Your task to perform on an android device: Open Youtube and go to "Your channel" Image 0: 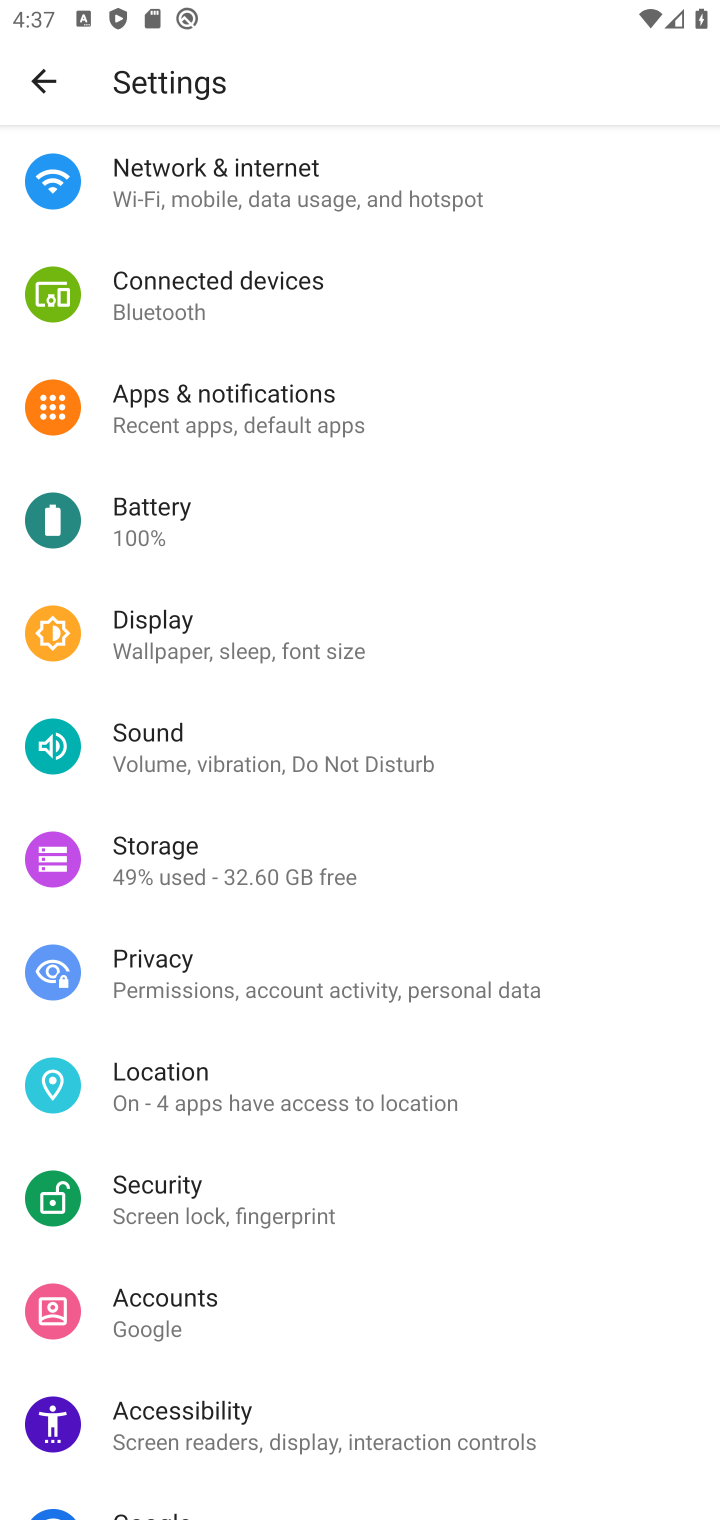
Step 0: press home button
Your task to perform on an android device: Open Youtube and go to "Your channel" Image 1: 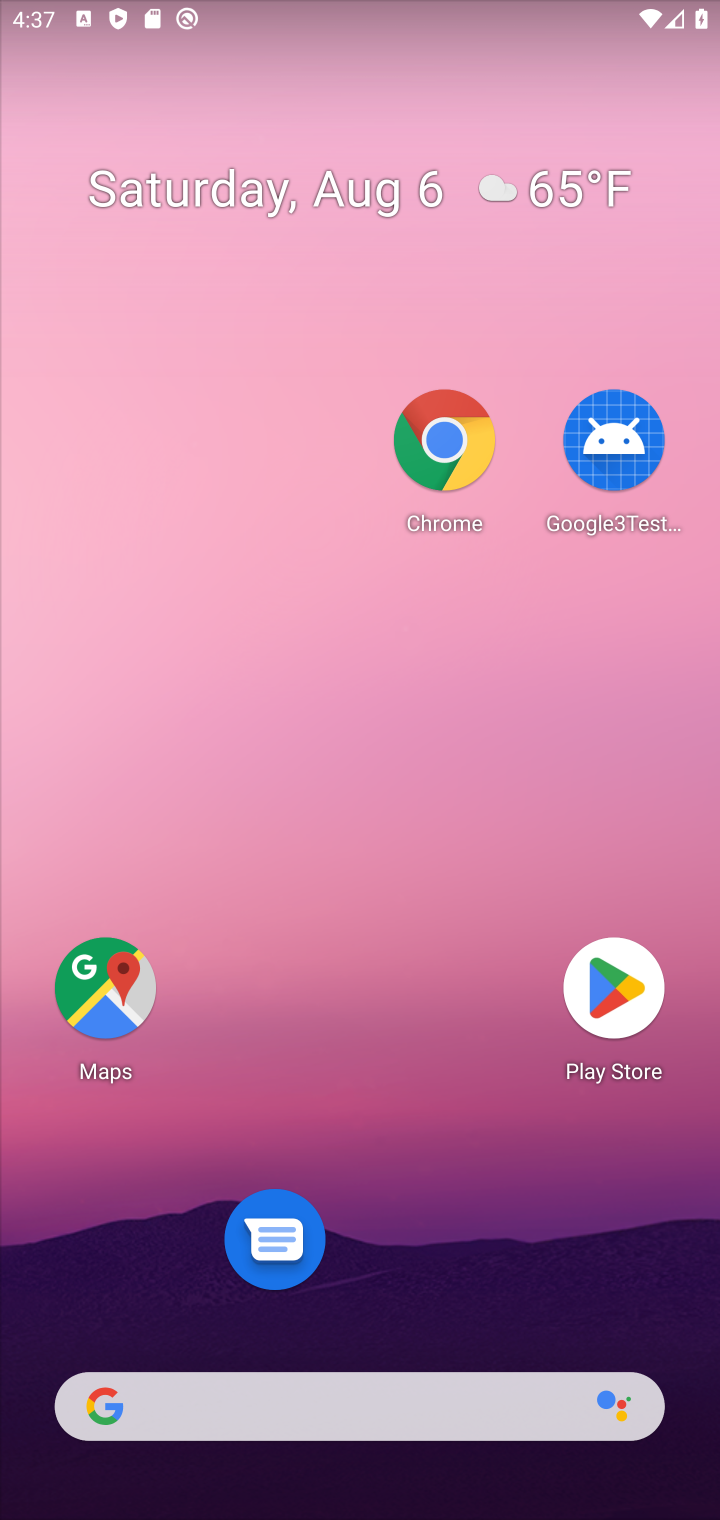
Step 1: drag from (507, 1400) to (440, 279)
Your task to perform on an android device: Open Youtube and go to "Your channel" Image 2: 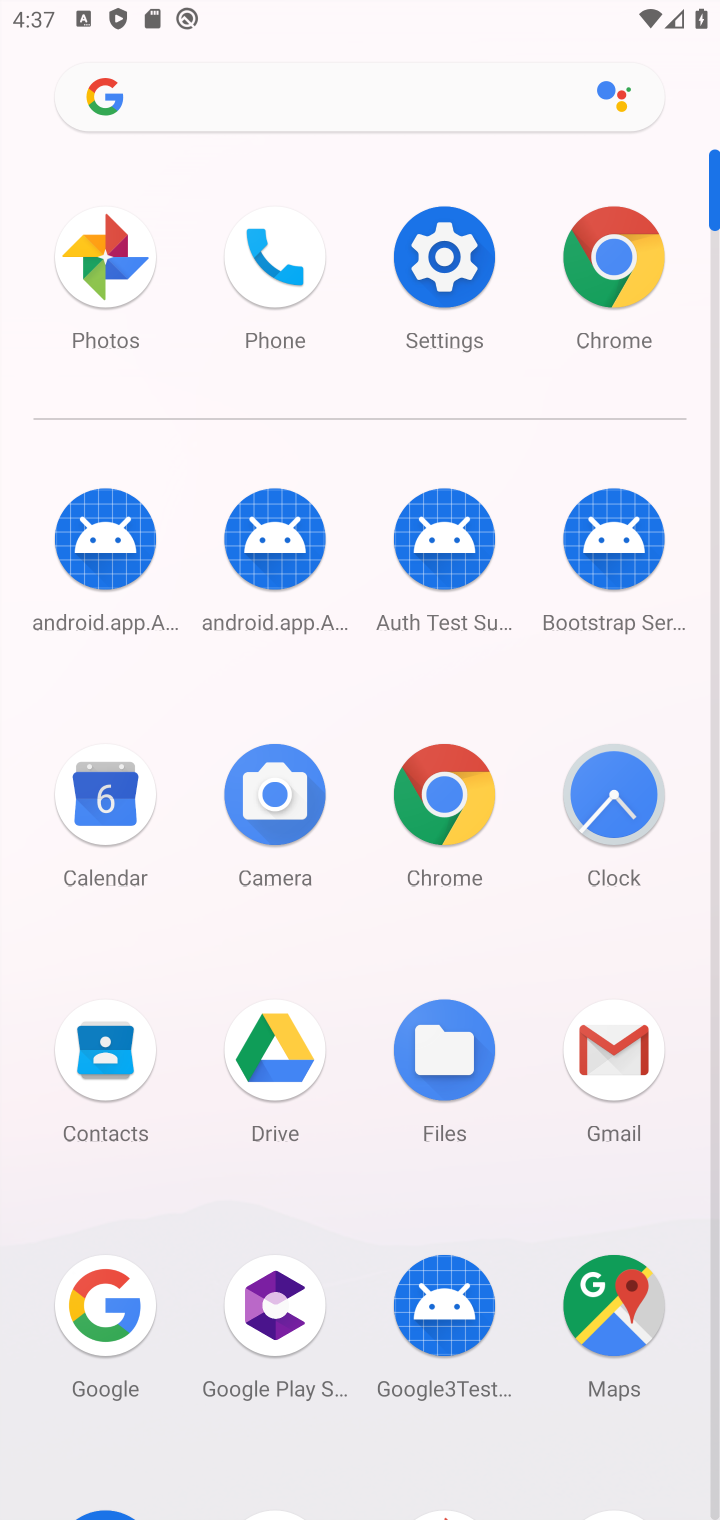
Step 2: drag from (520, 1217) to (515, 365)
Your task to perform on an android device: Open Youtube and go to "Your channel" Image 3: 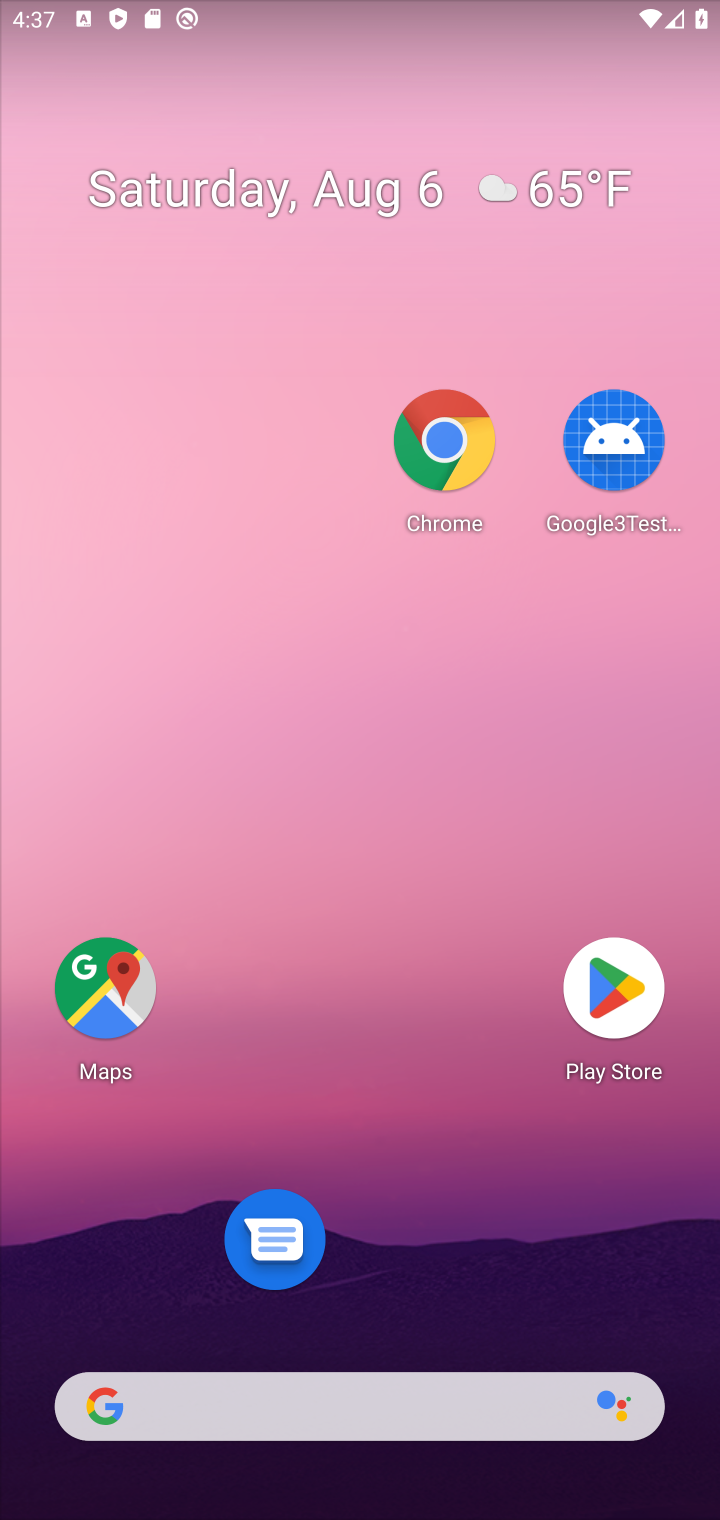
Step 3: drag from (404, 1403) to (373, 91)
Your task to perform on an android device: Open Youtube and go to "Your channel" Image 4: 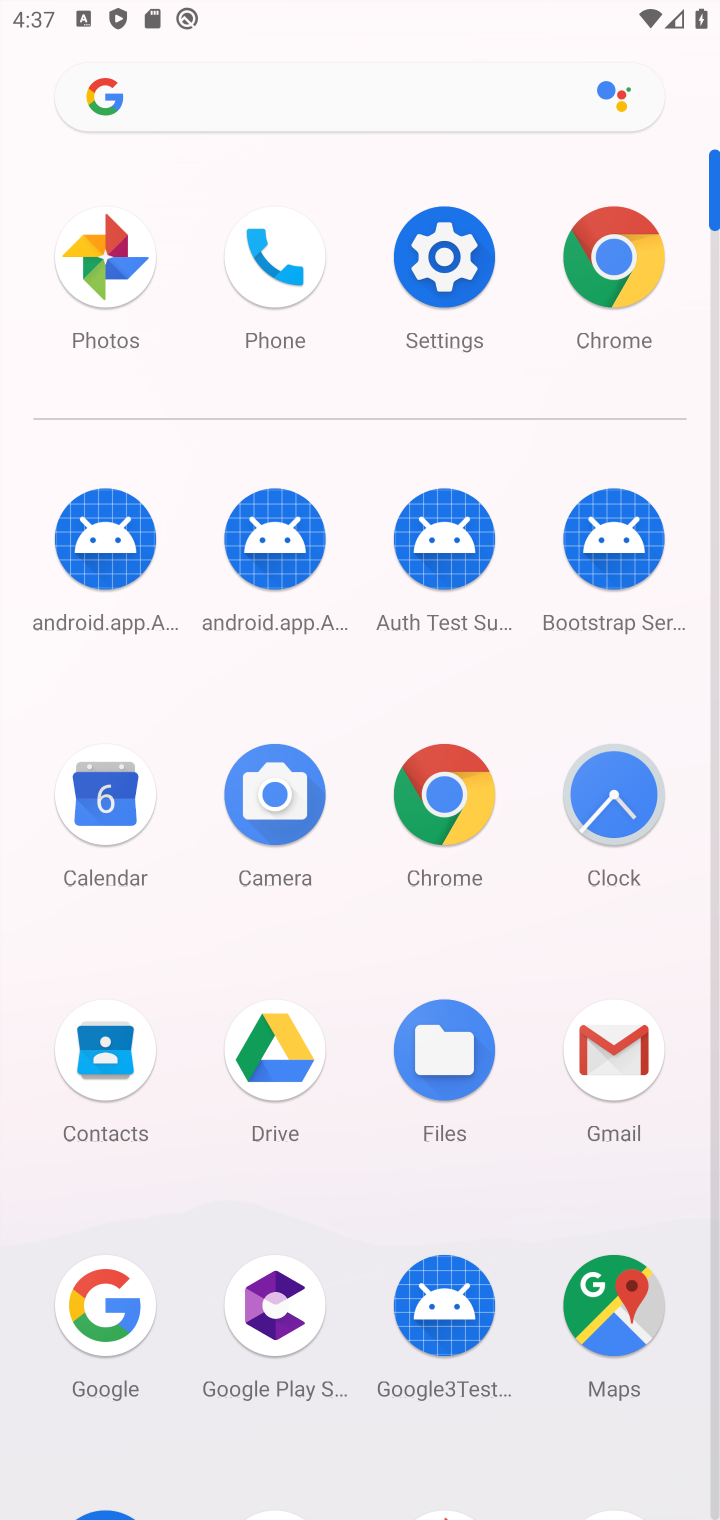
Step 4: drag from (489, 1220) to (514, 429)
Your task to perform on an android device: Open Youtube and go to "Your channel" Image 5: 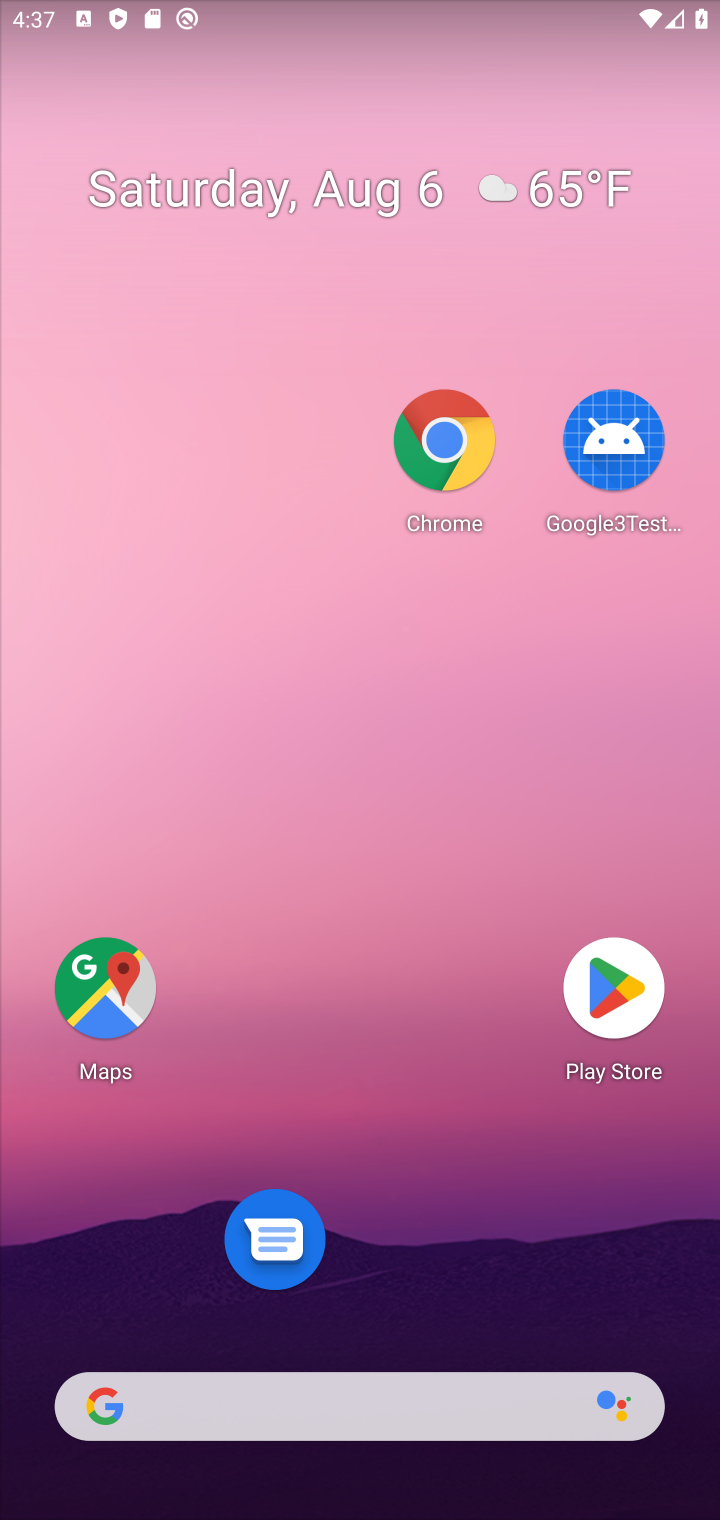
Step 5: drag from (434, 1300) to (342, 46)
Your task to perform on an android device: Open Youtube and go to "Your channel" Image 6: 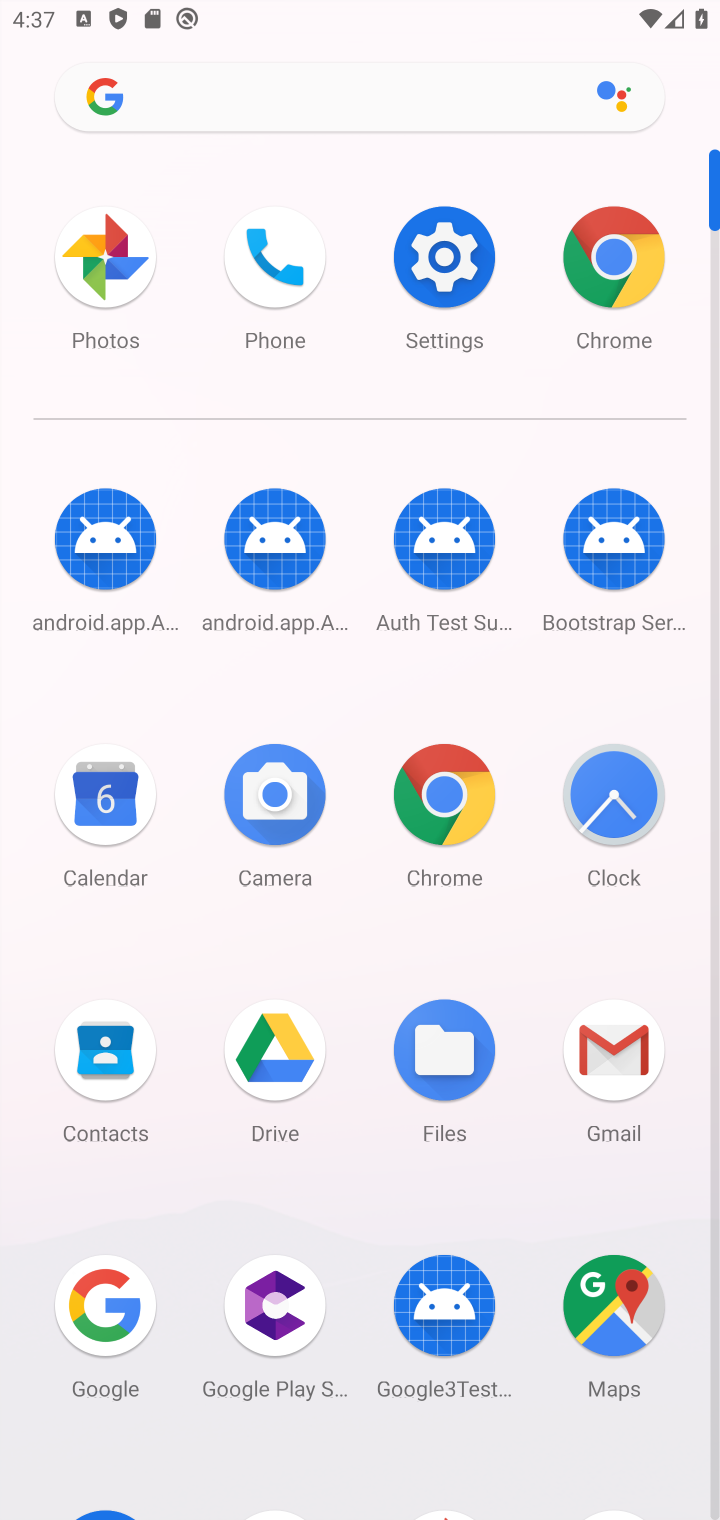
Step 6: drag from (338, 1261) to (292, 178)
Your task to perform on an android device: Open Youtube and go to "Your channel" Image 7: 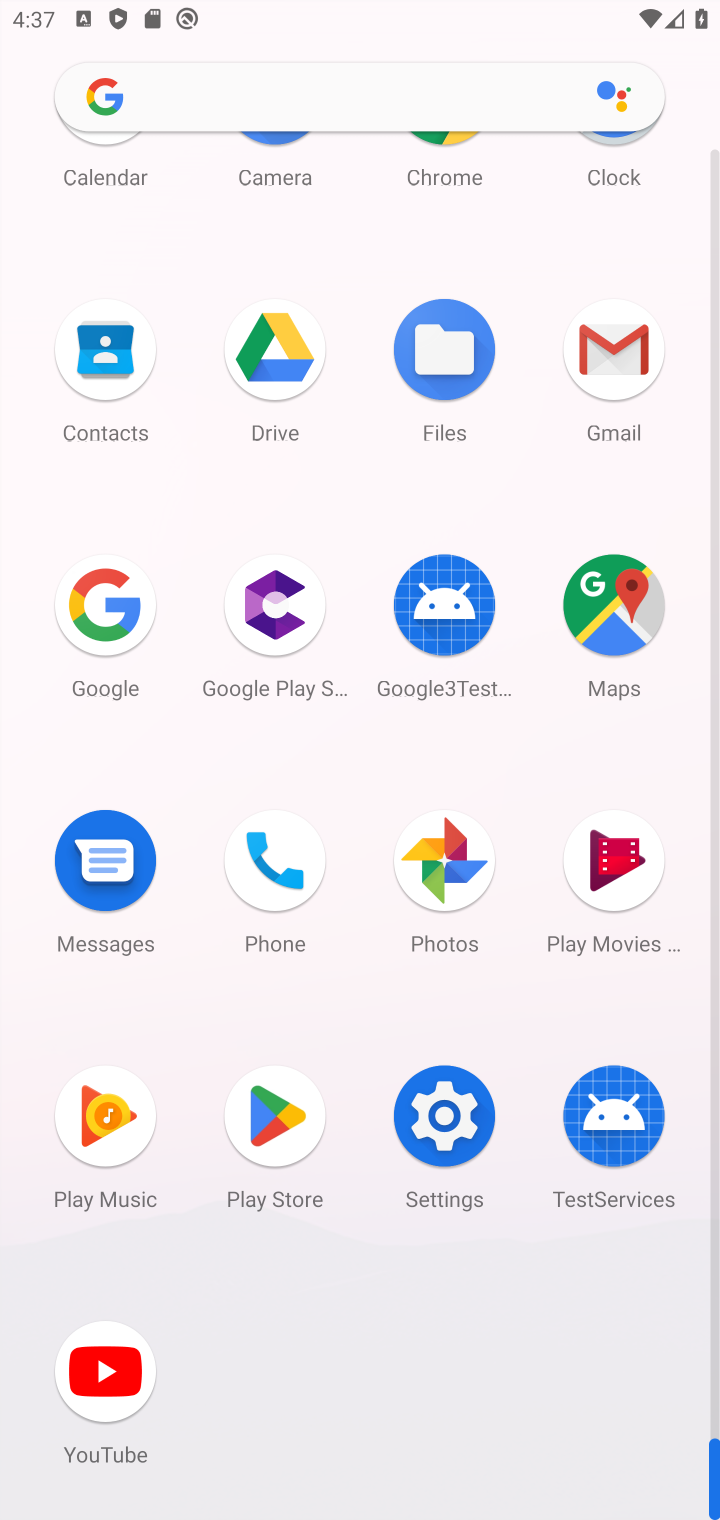
Step 7: click (110, 1364)
Your task to perform on an android device: Open Youtube and go to "Your channel" Image 8: 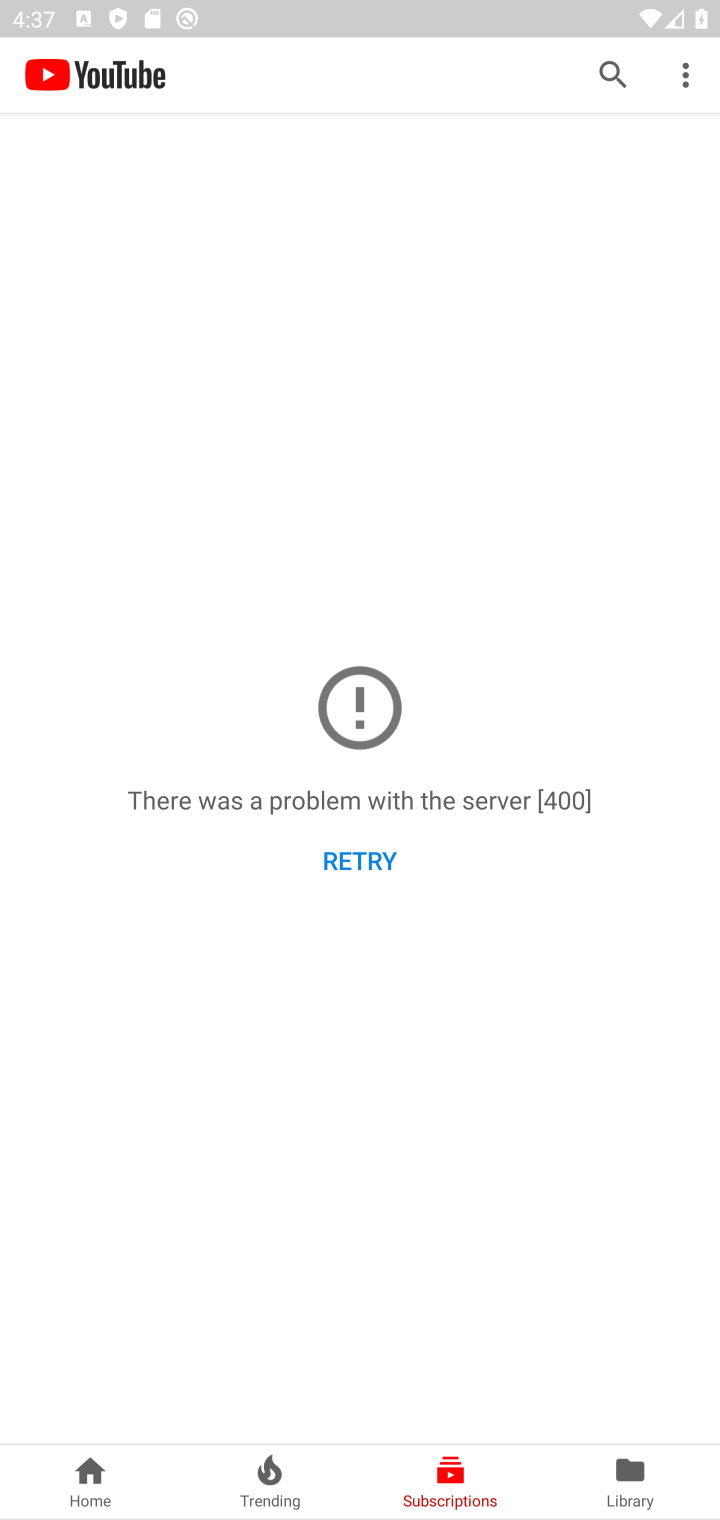
Step 8: click (629, 1469)
Your task to perform on an android device: Open Youtube and go to "Your channel" Image 9: 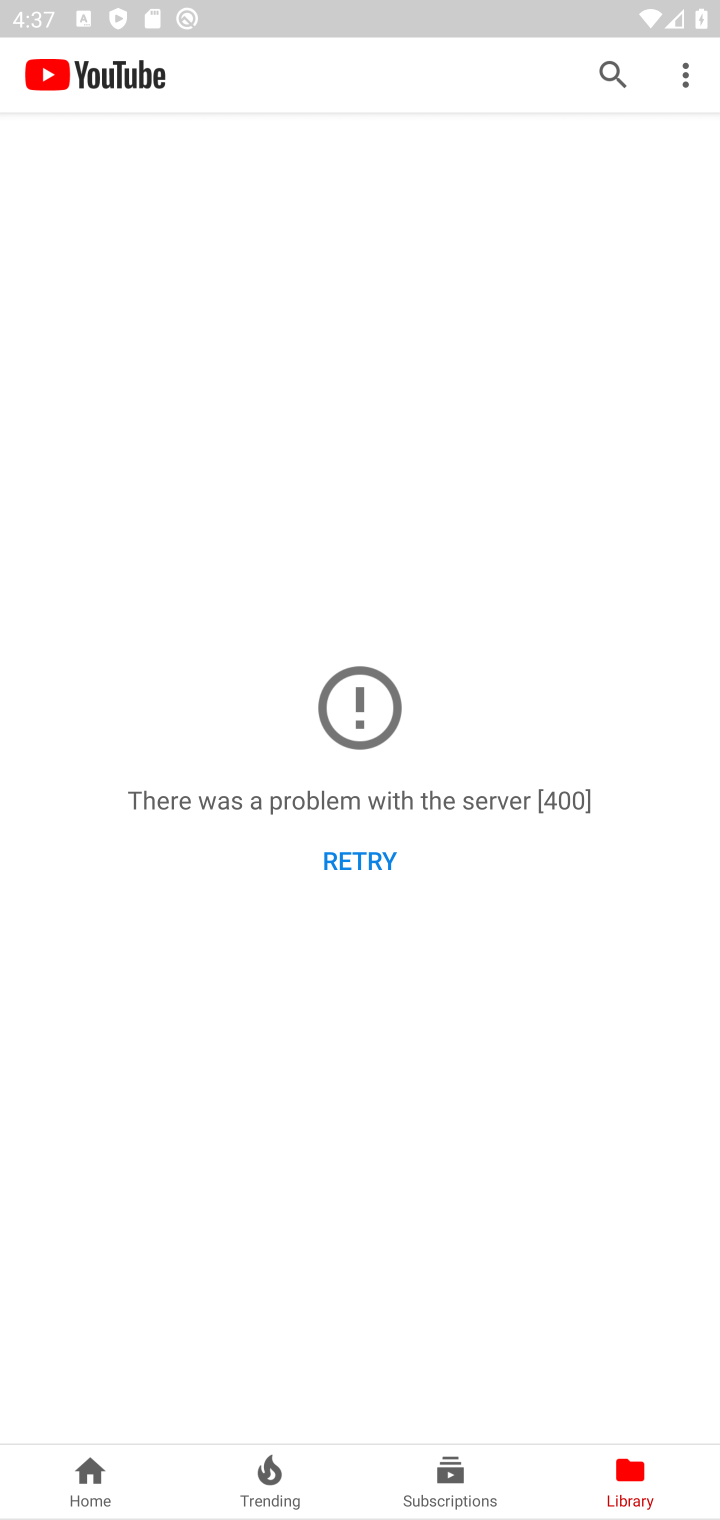
Step 9: click (679, 68)
Your task to perform on an android device: Open Youtube and go to "Your channel" Image 10: 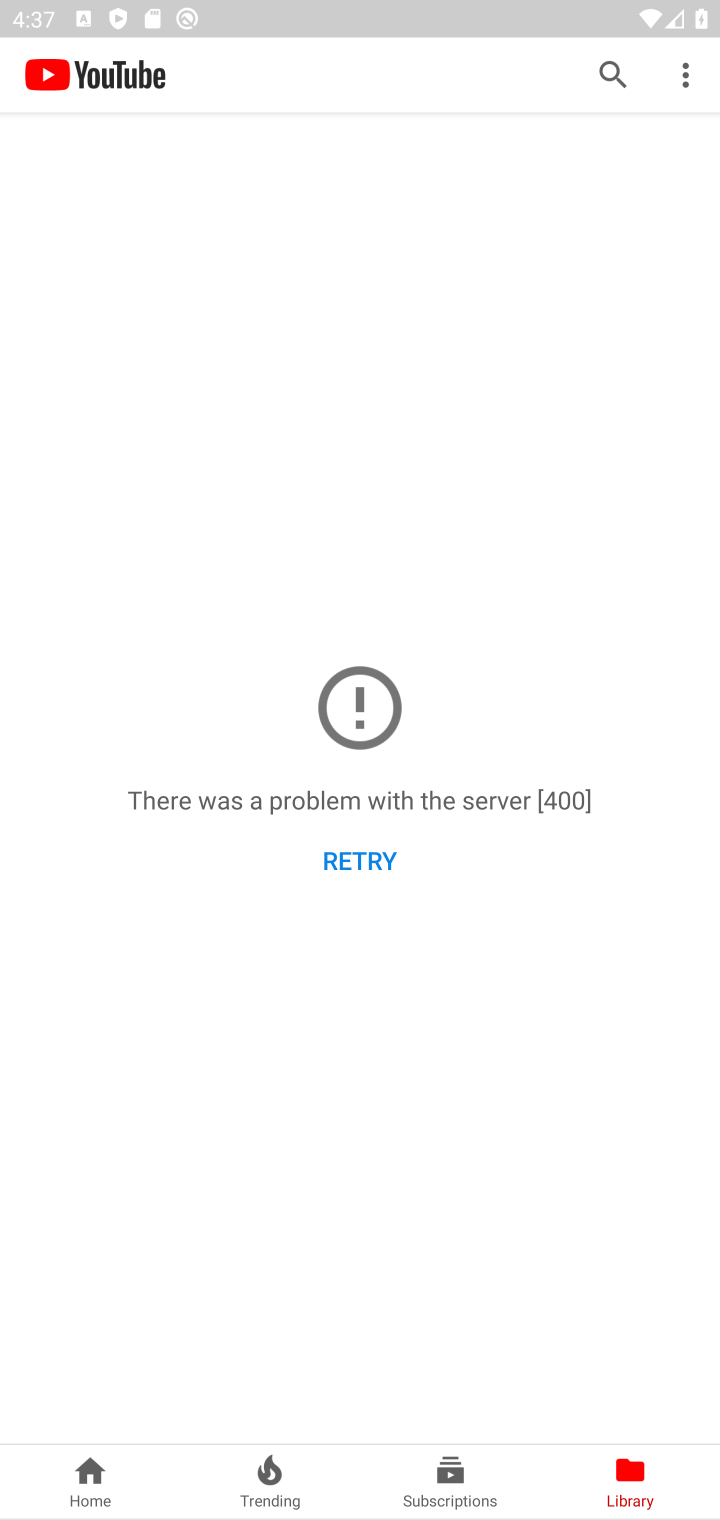
Step 10: click (679, 68)
Your task to perform on an android device: Open Youtube and go to "Your channel" Image 11: 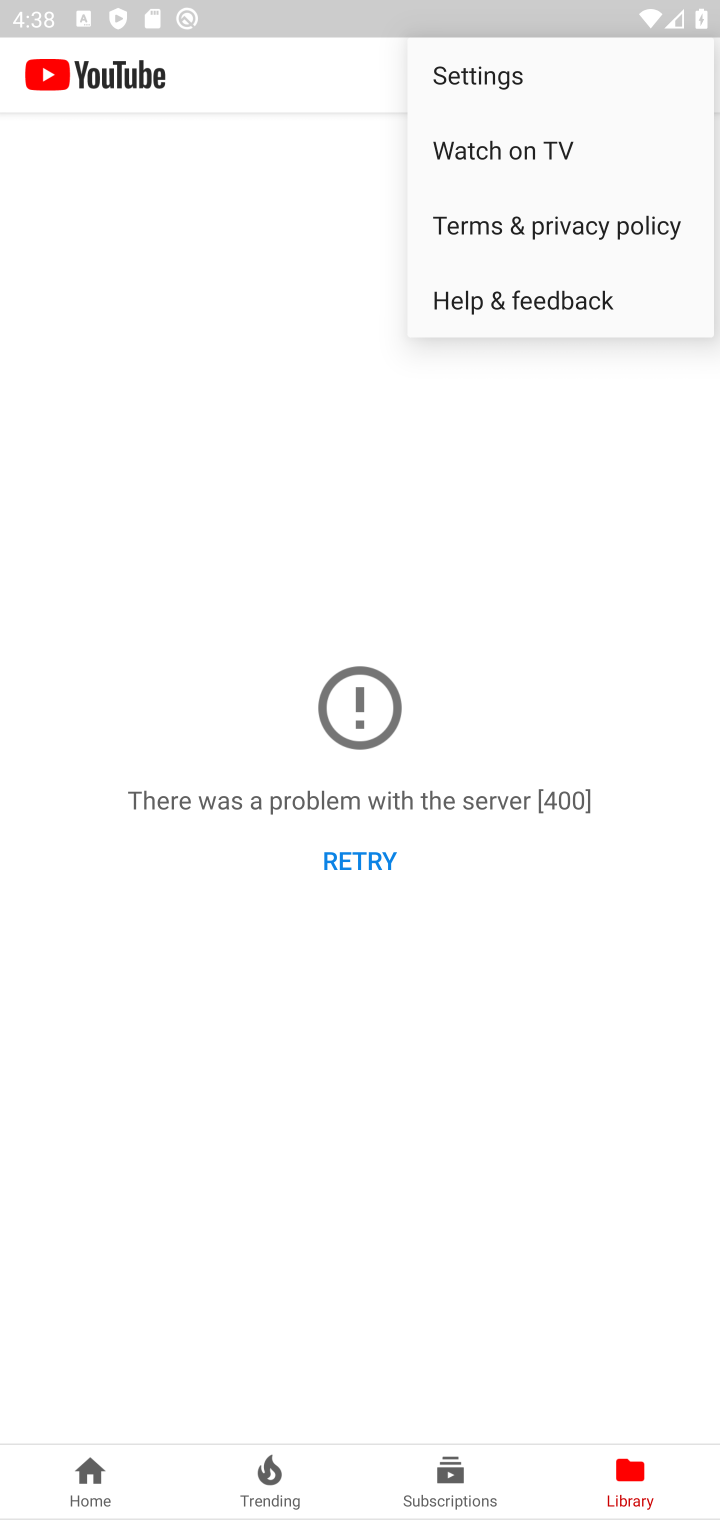
Step 11: click (545, 1030)
Your task to perform on an android device: Open Youtube and go to "Your channel" Image 12: 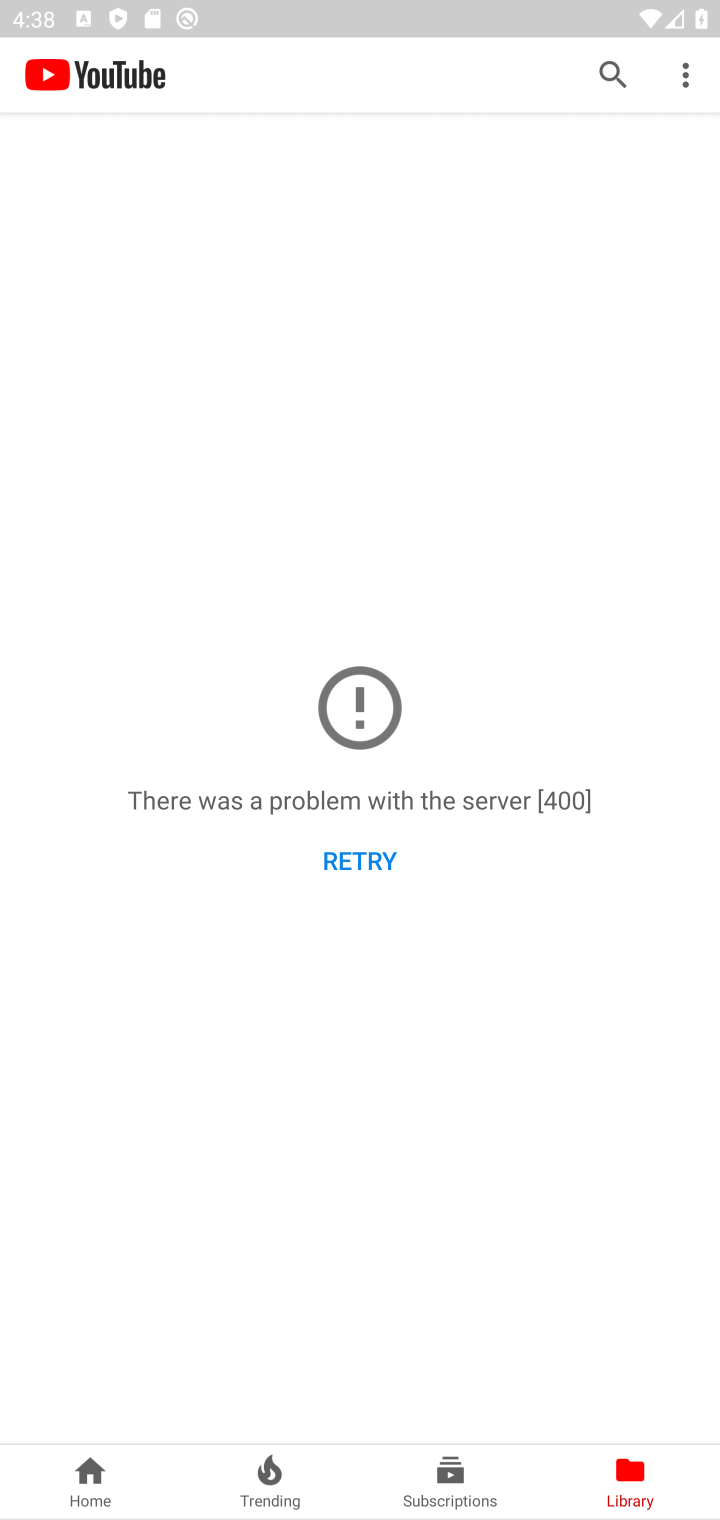
Step 12: task complete